Your task to perform on an android device: Search for the best movies of 2019  Image 0: 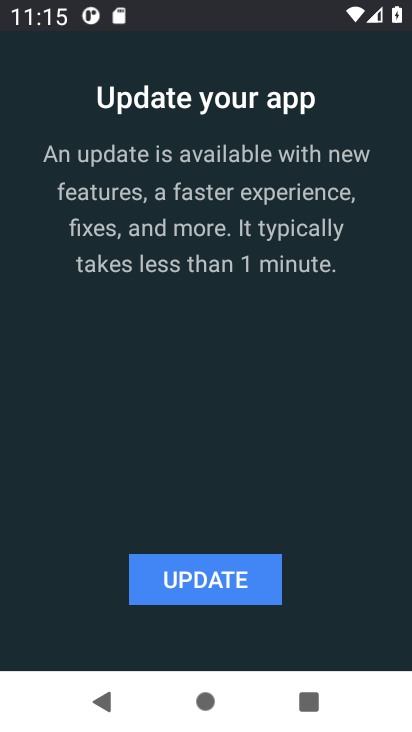
Step 0: press home button
Your task to perform on an android device: Search for the best movies of 2019  Image 1: 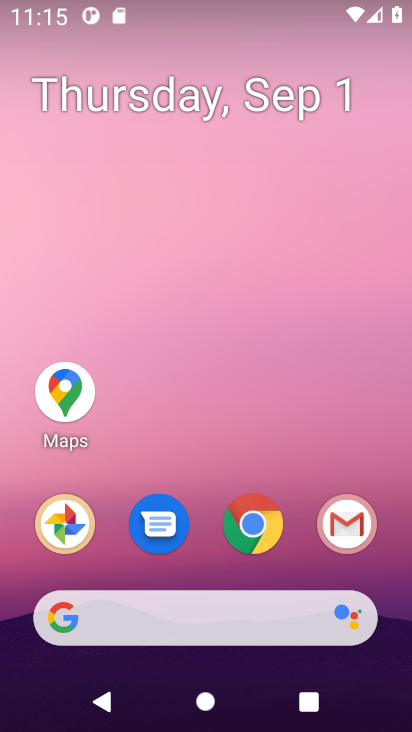
Step 1: click (241, 610)
Your task to perform on an android device: Search for the best movies of 2019  Image 2: 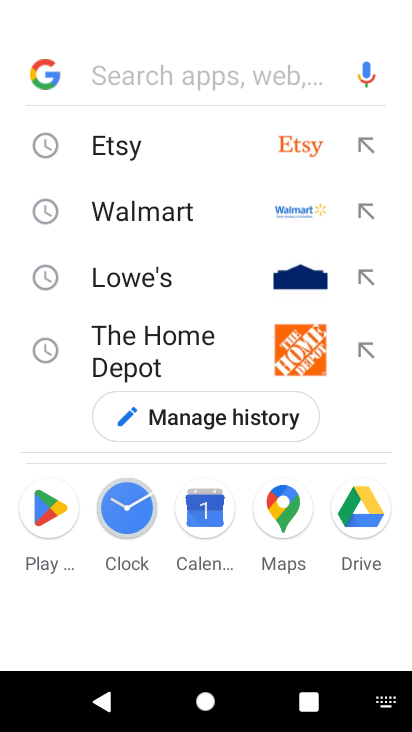
Step 2: press enter
Your task to perform on an android device: Search for the best movies of 2019  Image 3: 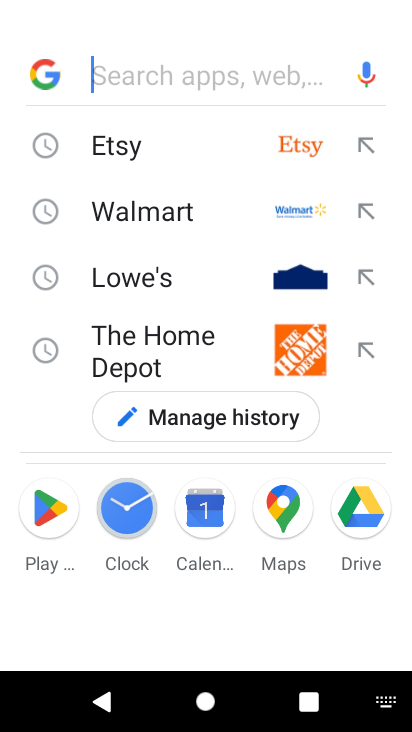
Step 3: type "best movies of 2019"
Your task to perform on an android device: Search for the best movies of 2019  Image 4: 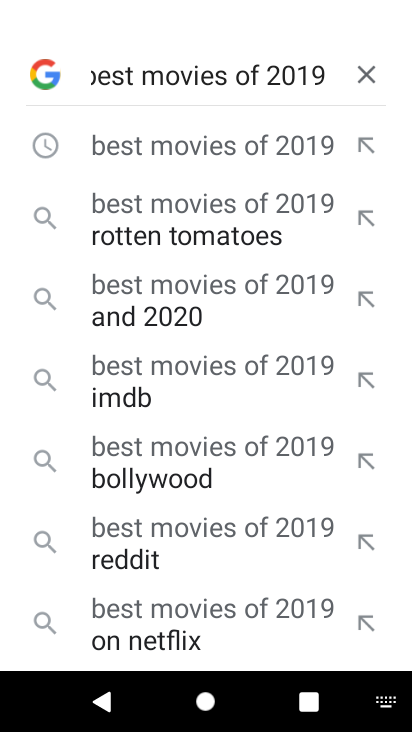
Step 4: click (282, 146)
Your task to perform on an android device: Search for the best movies of 2019  Image 5: 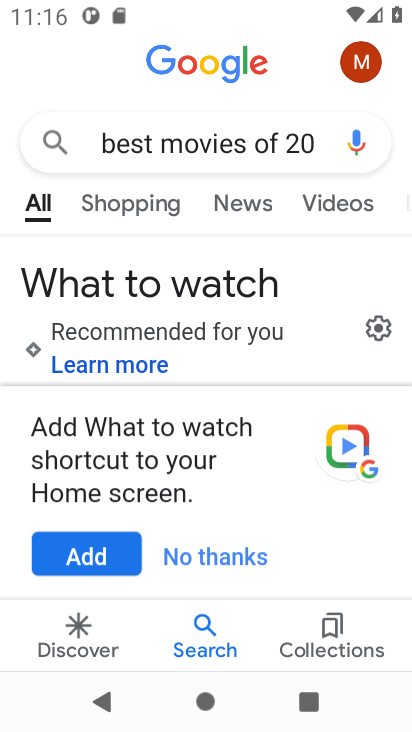
Step 5: click (248, 552)
Your task to perform on an android device: Search for the best movies of 2019  Image 6: 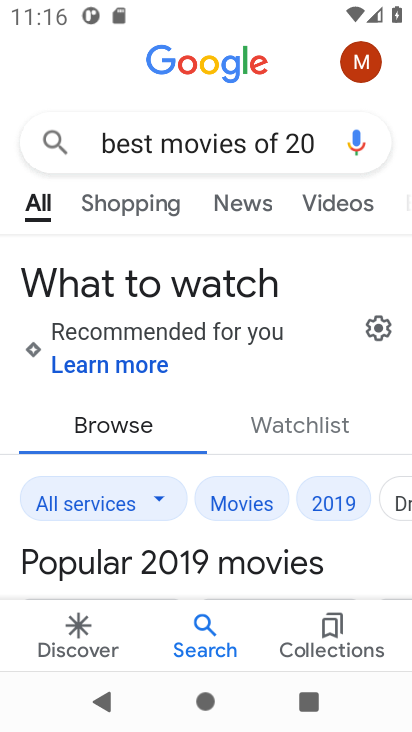
Step 6: task complete